Your task to perform on an android device: change alarm snooze length Image 0: 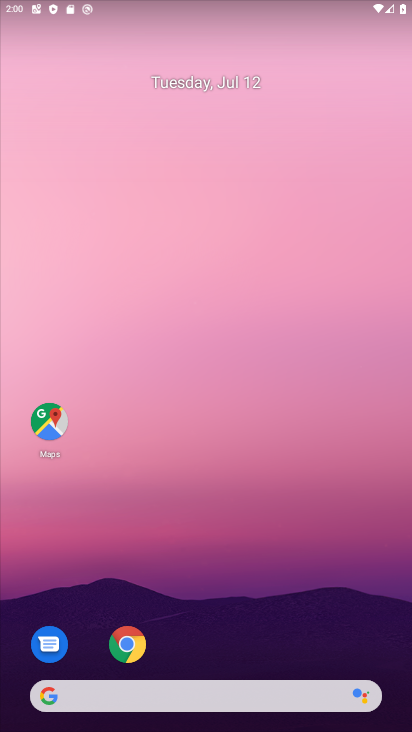
Step 0: drag from (182, 677) to (171, 39)
Your task to perform on an android device: change alarm snooze length Image 1: 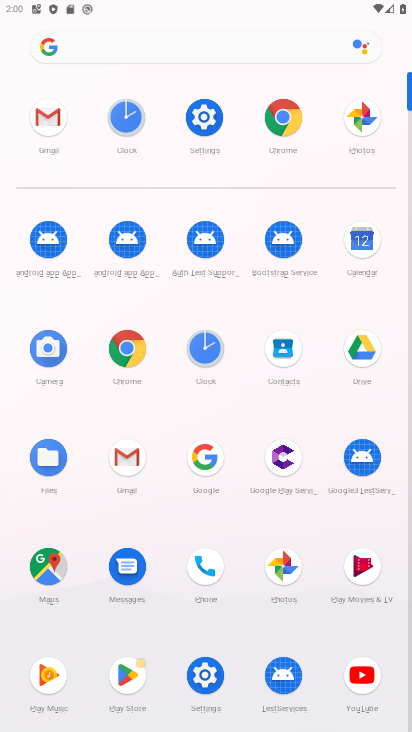
Step 1: click (222, 350)
Your task to perform on an android device: change alarm snooze length Image 2: 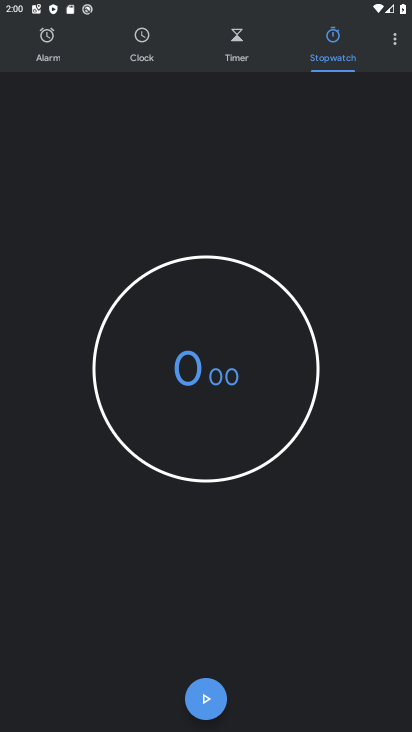
Step 2: click (388, 37)
Your task to perform on an android device: change alarm snooze length Image 3: 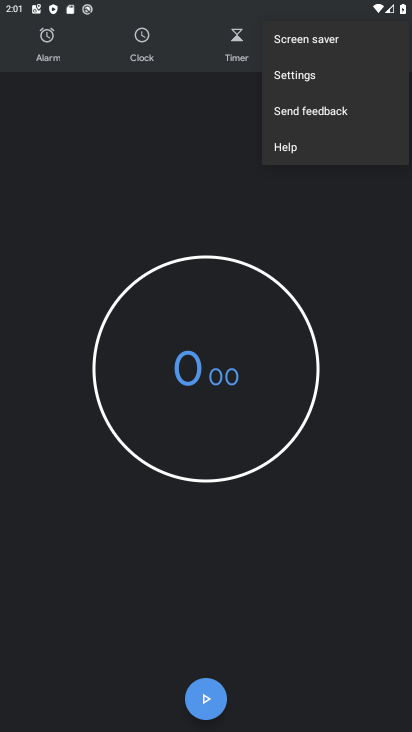
Step 3: click (299, 85)
Your task to perform on an android device: change alarm snooze length Image 4: 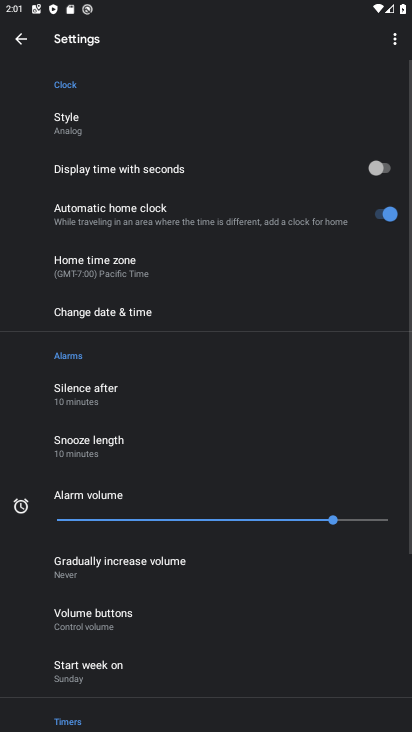
Step 4: click (103, 452)
Your task to perform on an android device: change alarm snooze length Image 5: 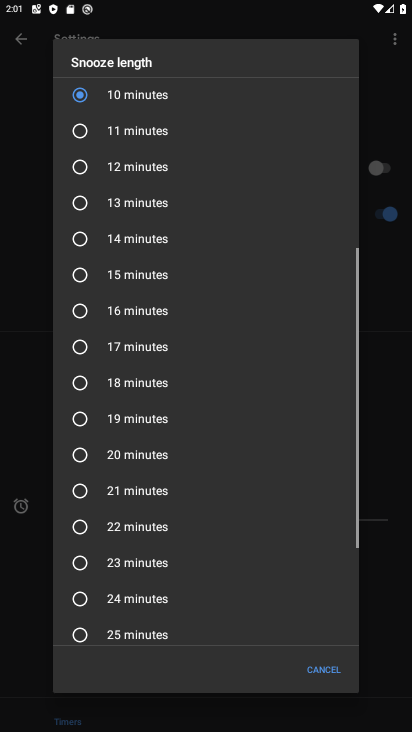
Step 5: click (72, 129)
Your task to perform on an android device: change alarm snooze length Image 6: 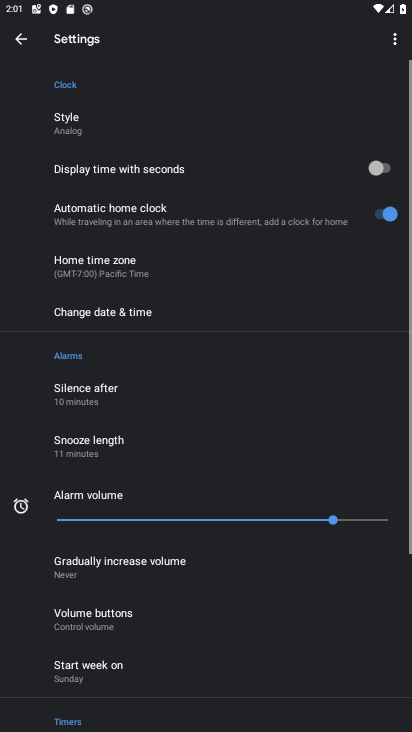
Step 6: task complete